Your task to perform on an android device: open chrome and create a bookmark for the current page Image 0: 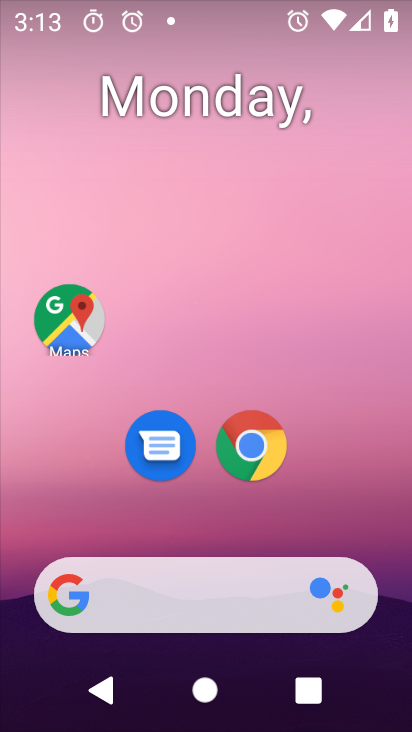
Step 0: click (248, 464)
Your task to perform on an android device: open chrome and create a bookmark for the current page Image 1: 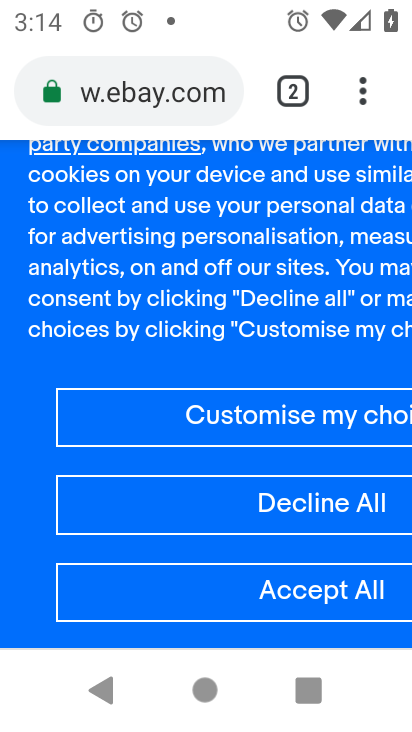
Step 1: click (355, 104)
Your task to perform on an android device: open chrome and create a bookmark for the current page Image 2: 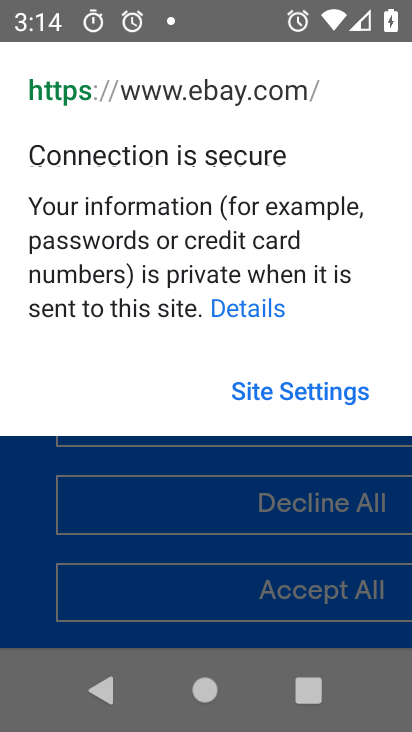
Step 2: click (294, 484)
Your task to perform on an android device: open chrome and create a bookmark for the current page Image 3: 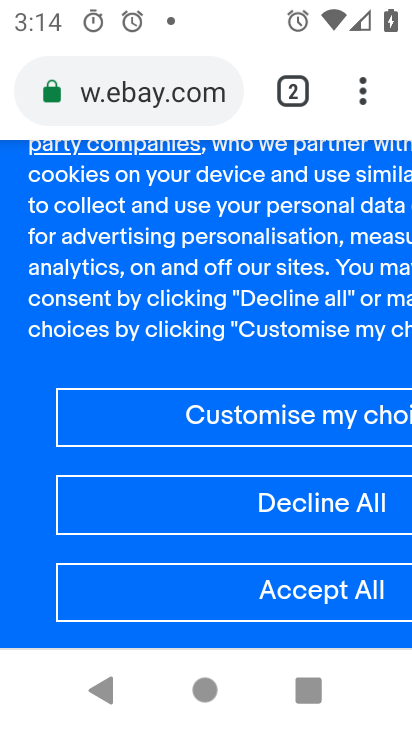
Step 3: task complete